Your task to perform on an android device: turn off notifications settings in the gmail app Image 0: 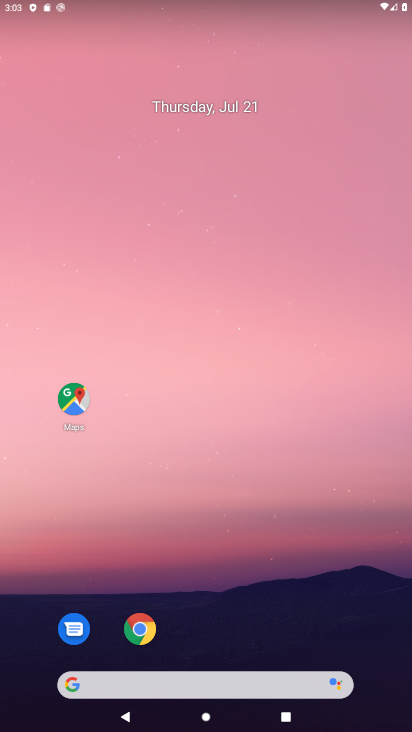
Step 0: click (144, 624)
Your task to perform on an android device: turn off notifications settings in the gmail app Image 1: 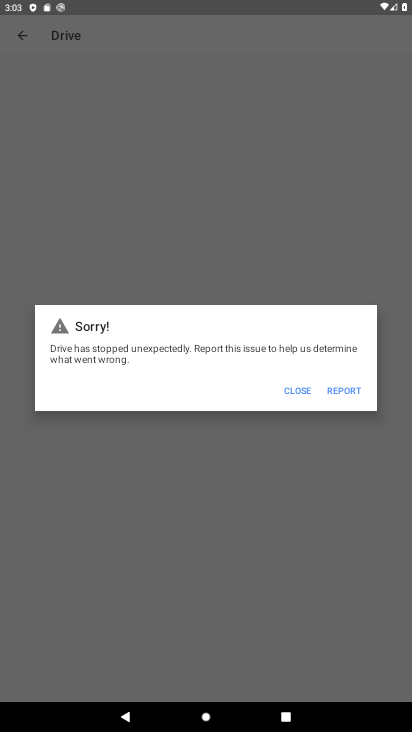
Step 1: press home button
Your task to perform on an android device: turn off notifications settings in the gmail app Image 2: 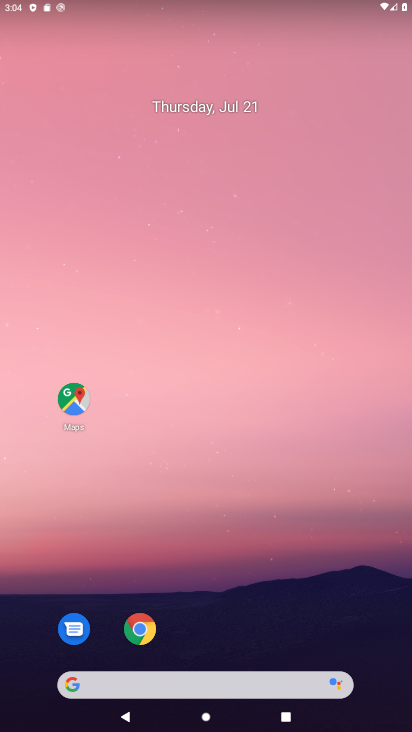
Step 2: drag from (271, 589) to (217, 57)
Your task to perform on an android device: turn off notifications settings in the gmail app Image 3: 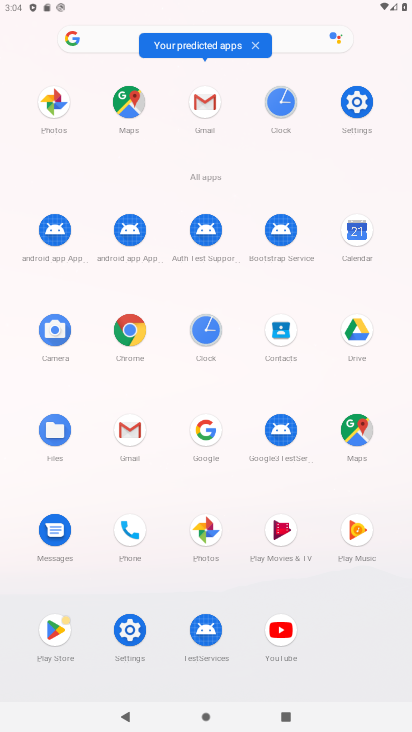
Step 3: click (197, 102)
Your task to perform on an android device: turn off notifications settings in the gmail app Image 4: 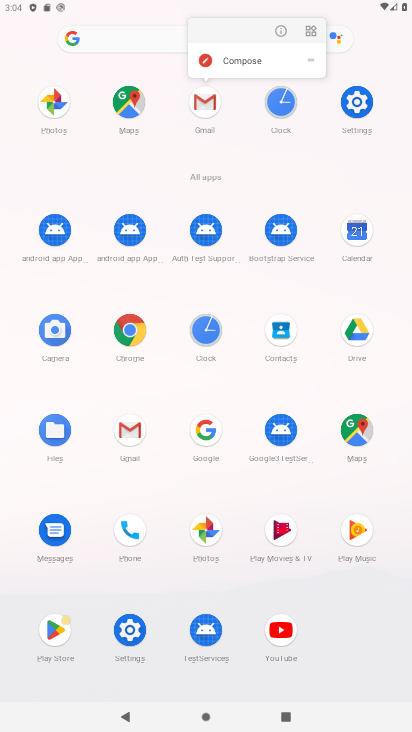
Step 4: click (286, 26)
Your task to perform on an android device: turn off notifications settings in the gmail app Image 5: 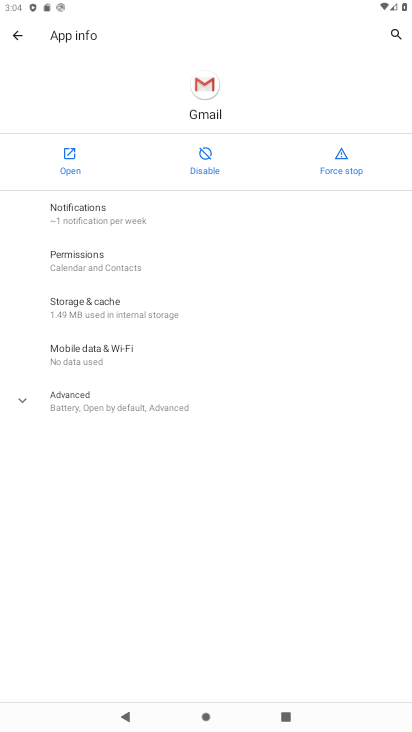
Step 5: click (157, 207)
Your task to perform on an android device: turn off notifications settings in the gmail app Image 6: 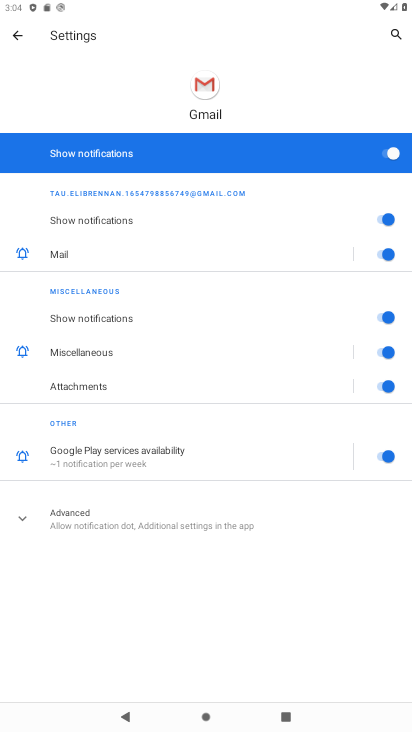
Step 6: click (387, 151)
Your task to perform on an android device: turn off notifications settings in the gmail app Image 7: 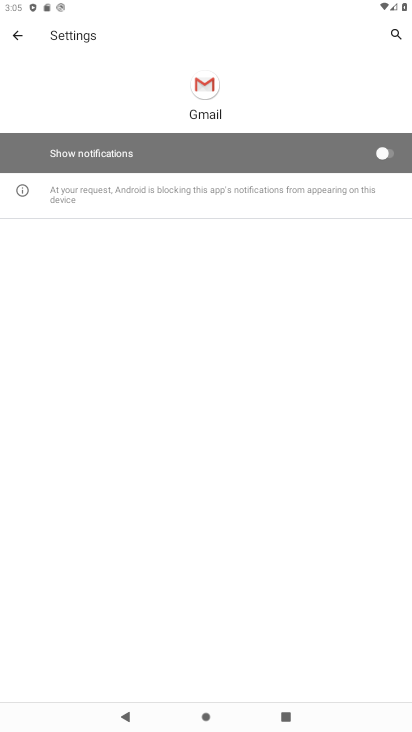
Step 7: task complete